Your task to perform on an android device: Open Chrome and go to the settings page Image 0: 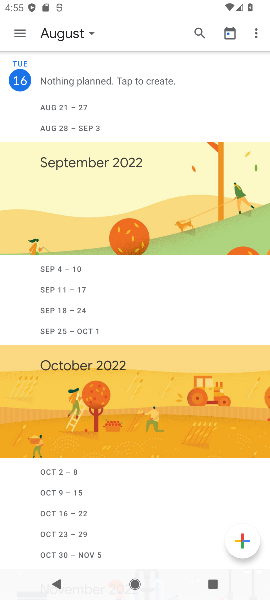
Step 0: press home button
Your task to perform on an android device: Open Chrome and go to the settings page Image 1: 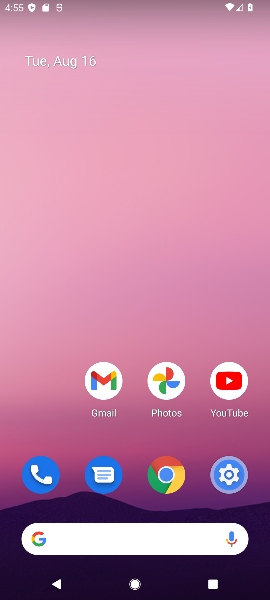
Step 1: drag from (261, 499) to (173, 73)
Your task to perform on an android device: Open Chrome and go to the settings page Image 2: 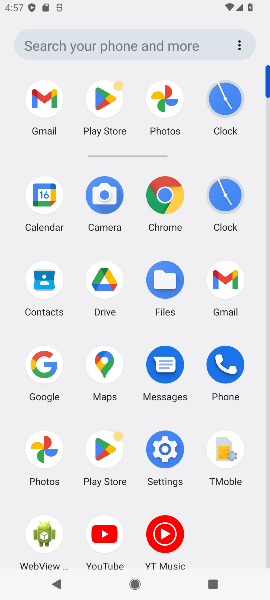
Step 2: click (163, 201)
Your task to perform on an android device: Open Chrome and go to the settings page Image 3: 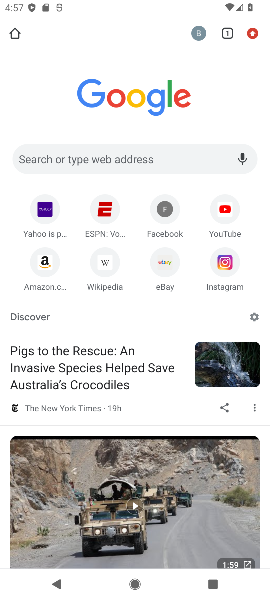
Step 3: click (252, 33)
Your task to perform on an android device: Open Chrome and go to the settings page Image 4: 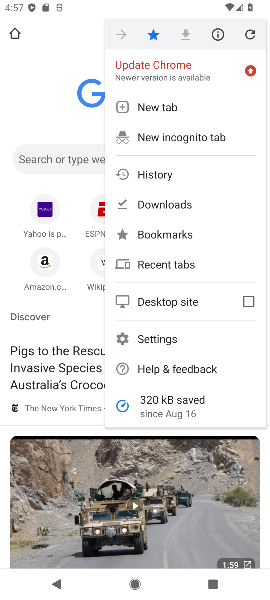
Step 4: click (161, 344)
Your task to perform on an android device: Open Chrome and go to the settings page Image 5: 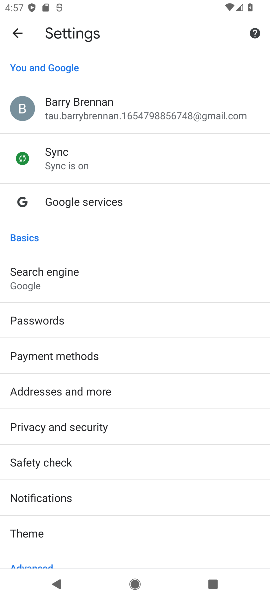
Step 5: task complete